Your task to perform on an android device: check out phone information Image 0: 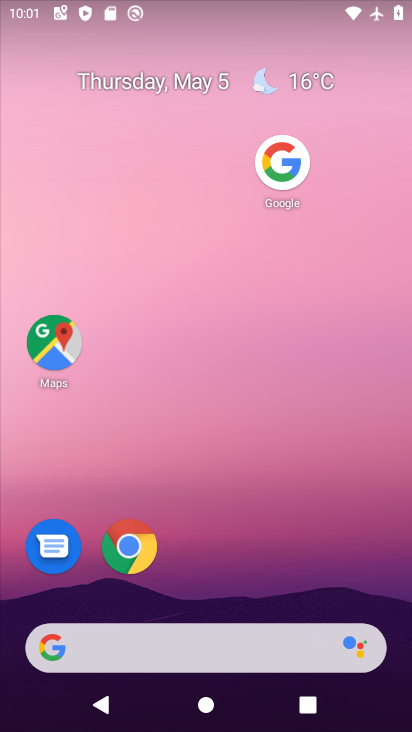
Step 0: drag from (211, 567) to (328, 154)
Your task to perform on an android device: check out phone information Image 1: 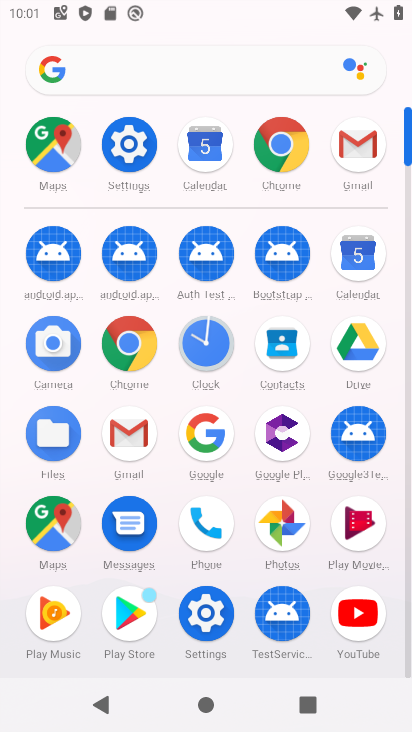
Step 1: click (130, 151)
Your task to perform on an android device: check out phone information Image 2: 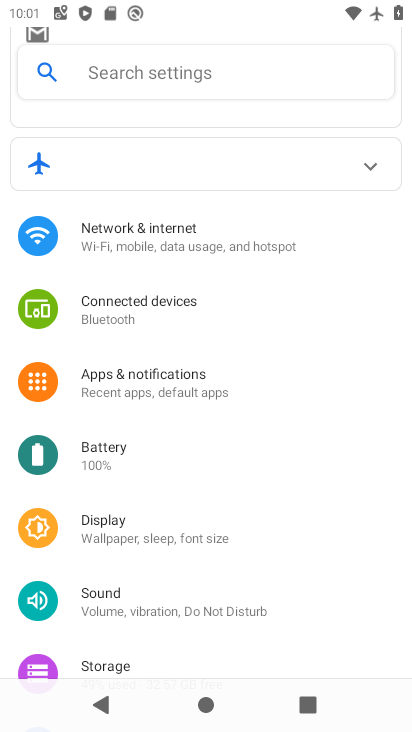
Step 2: drag from (242, 601) to (398, 125)
Your task to perform on an android device: check out phone information Image 3: 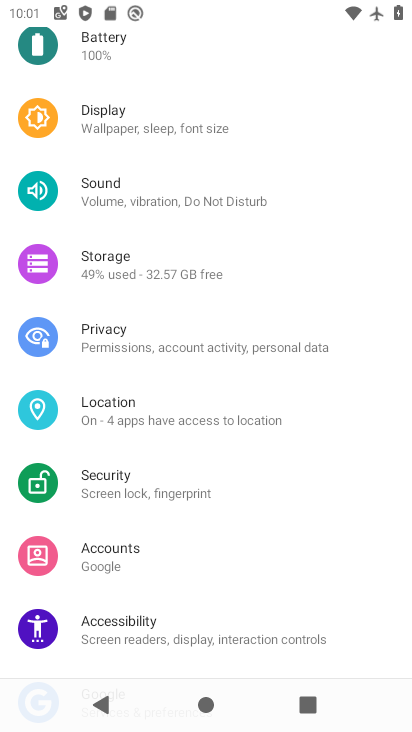
Step 3: drag from (205, 574) to (373, 59)
Your task to perform on an android device: check out phone information Image 4: 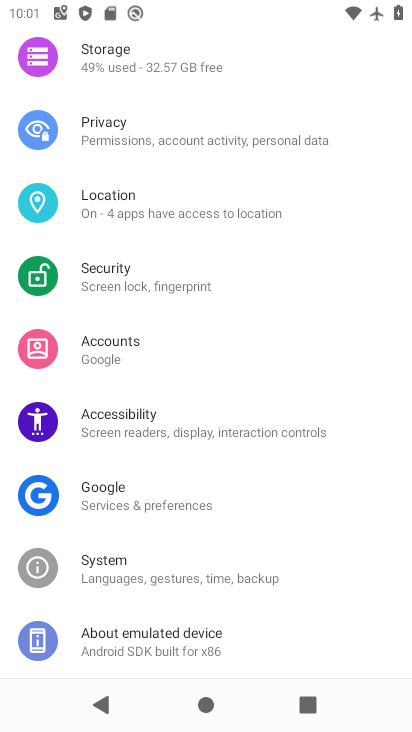
Step 4: click (150, 641)
Your task to perform on an android device: check out phone information Image 5: 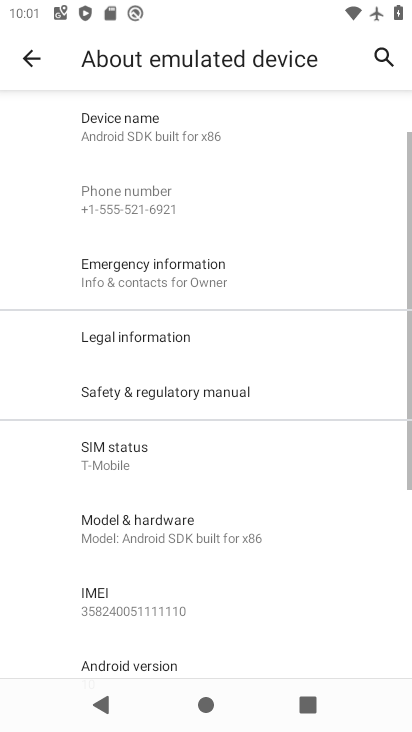
Step 5: task complete